Your task to perform on an android device: visit the assistant section in the google photos Image 0: 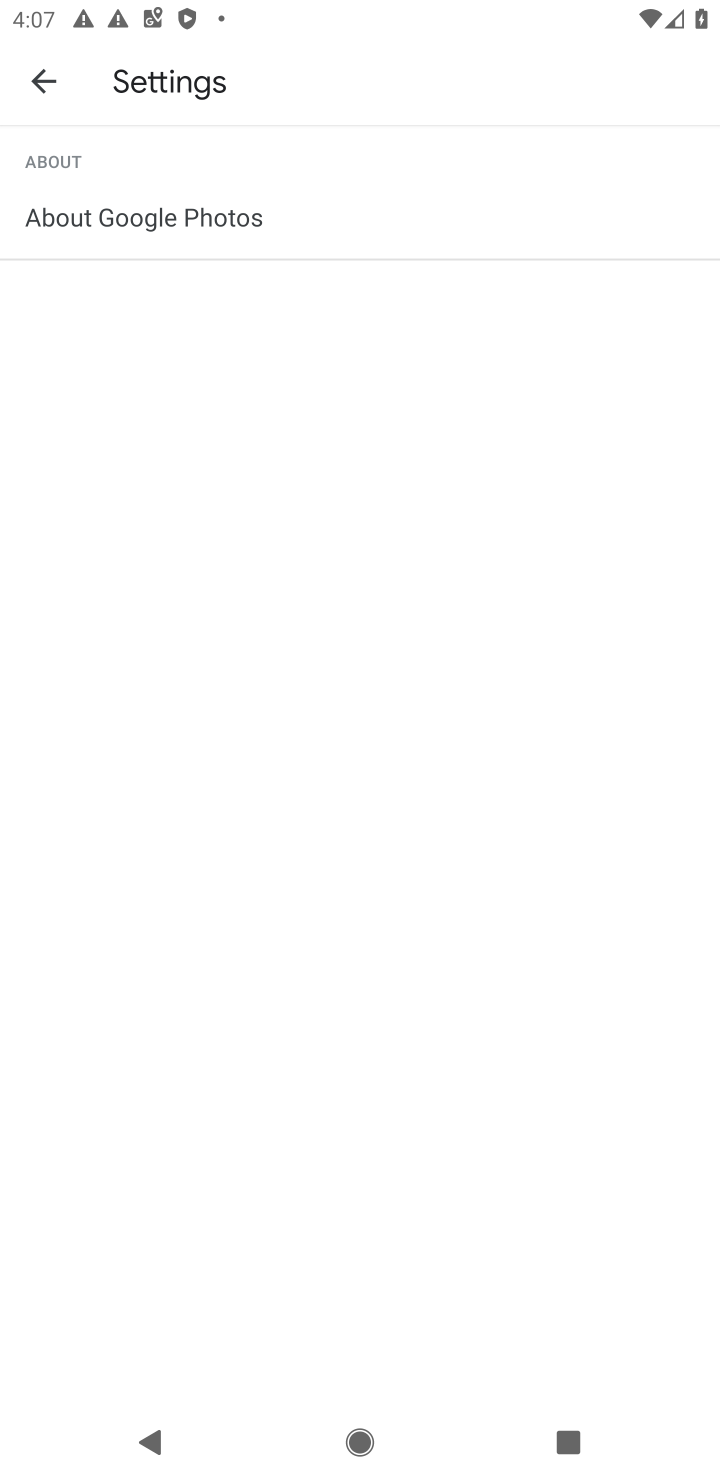
Step 0: press home button
Your task to perform on an android device: visit the assistant section in the google photos Image 1: 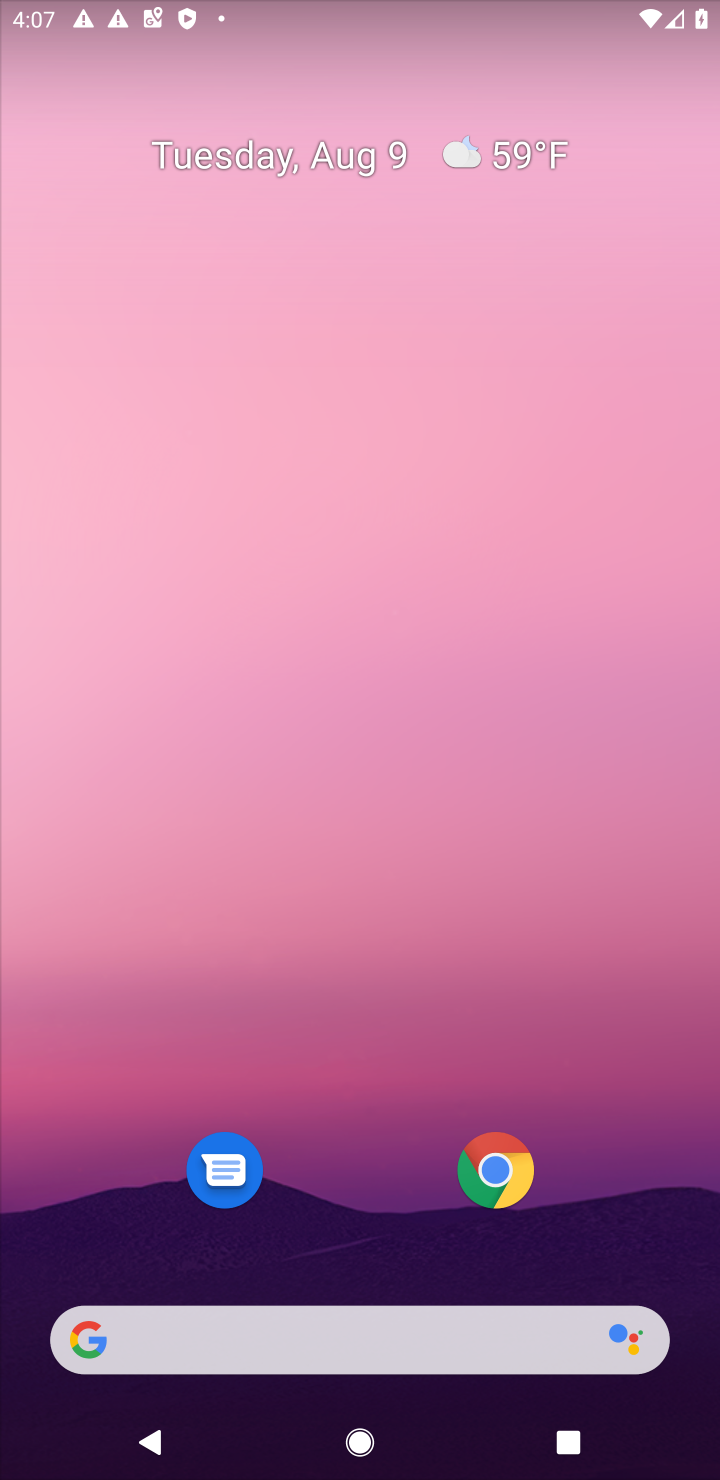
Step 1: drag from (356, 1231) to (341, 369)
Your task to perform on an android device: visit the assistant section in the google photos Image 2: 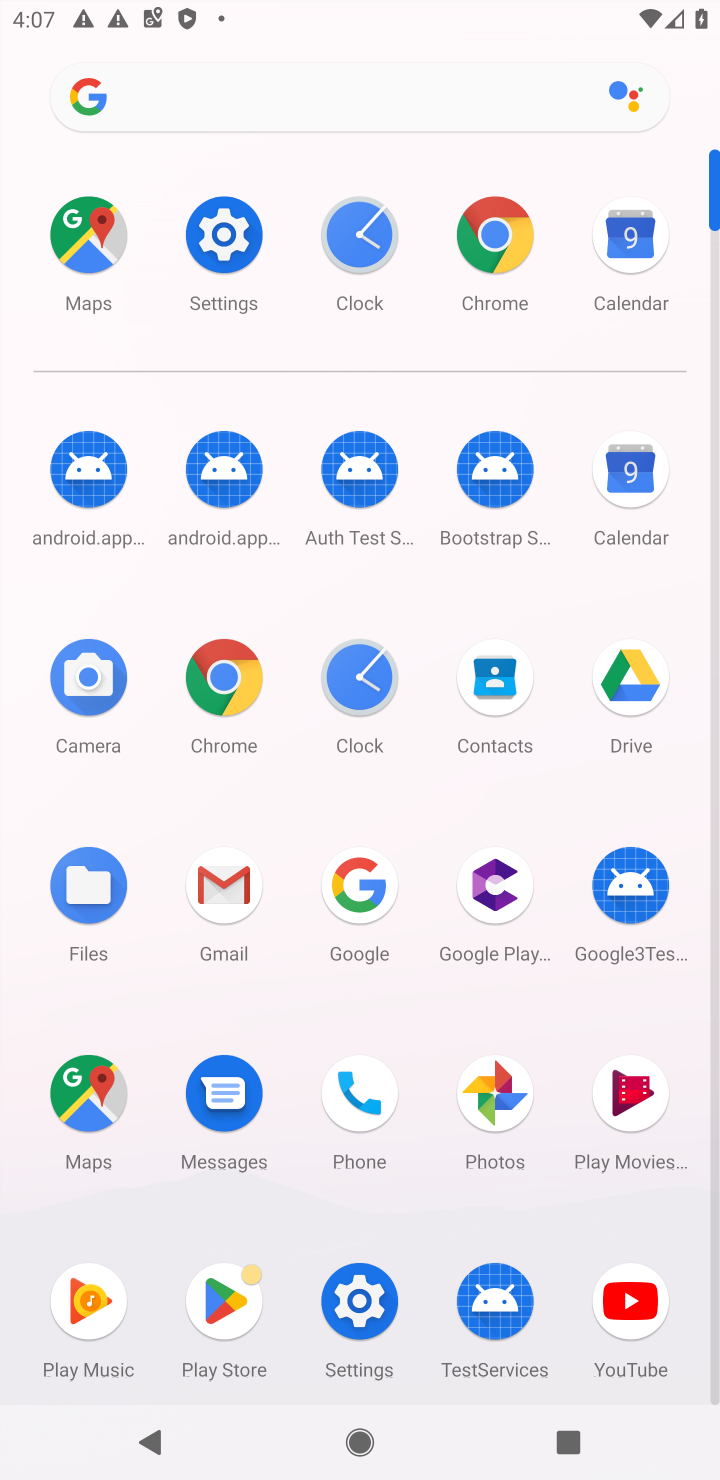
Step 2: click (485, 1095)
Your task to perform on an android device: visit the assistant section in the google photos Image 3: 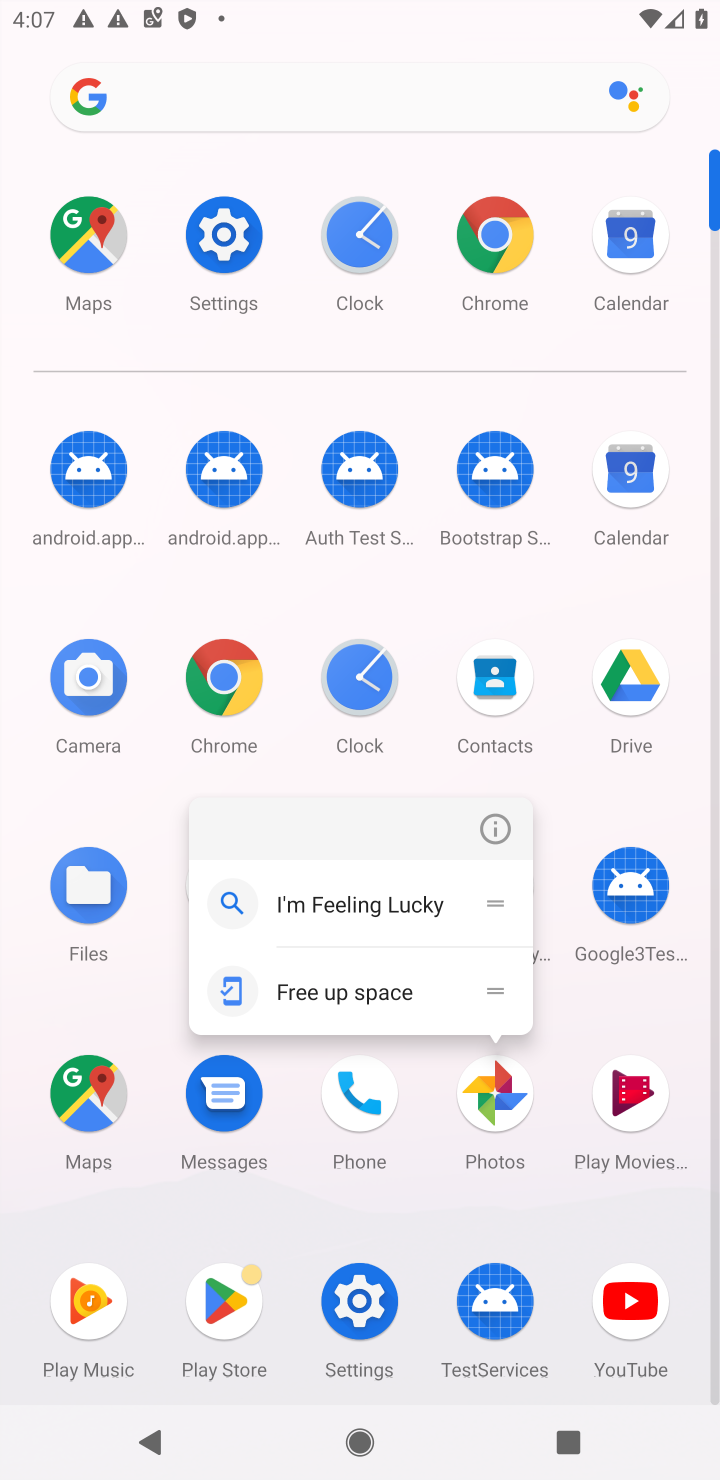
Step 3: click (473, 1121)
Your task to perform on an android device: visit the assistant section in the google photos Image 4: 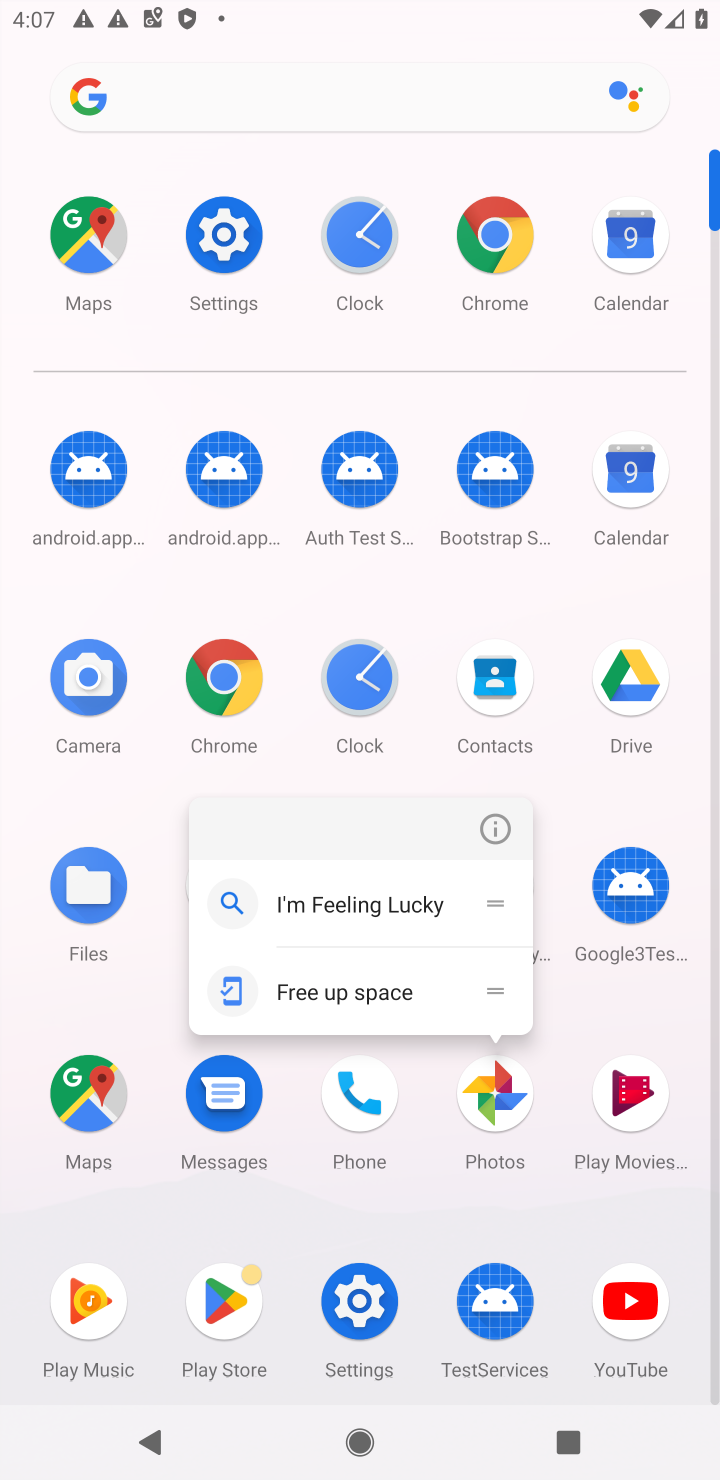
Step 4: click (481, 1108)
Your task to perform on an android device: visit the assistant section in the google photos Image 5: 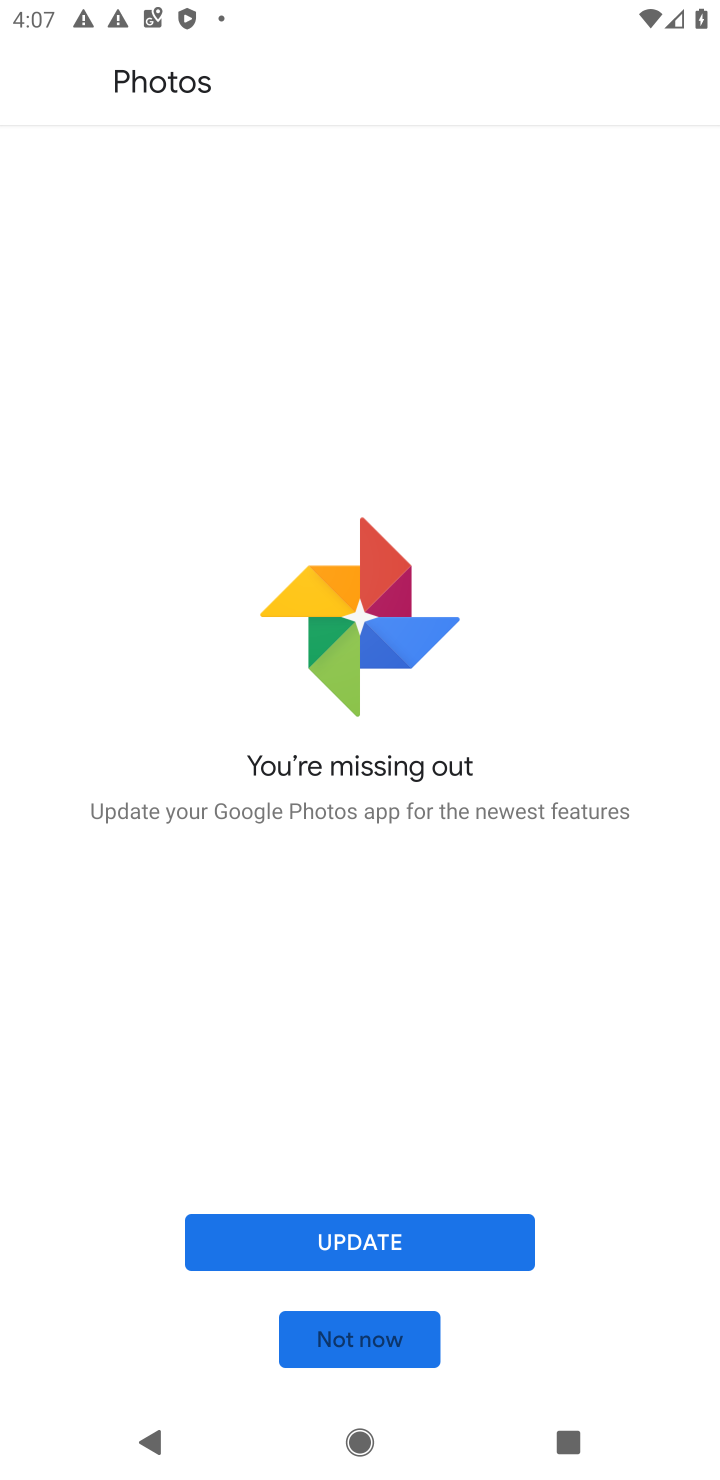
Step 5: click (405, 1237)
Your task to perform on an android device: visit the assistant section in the google photos Image 6: 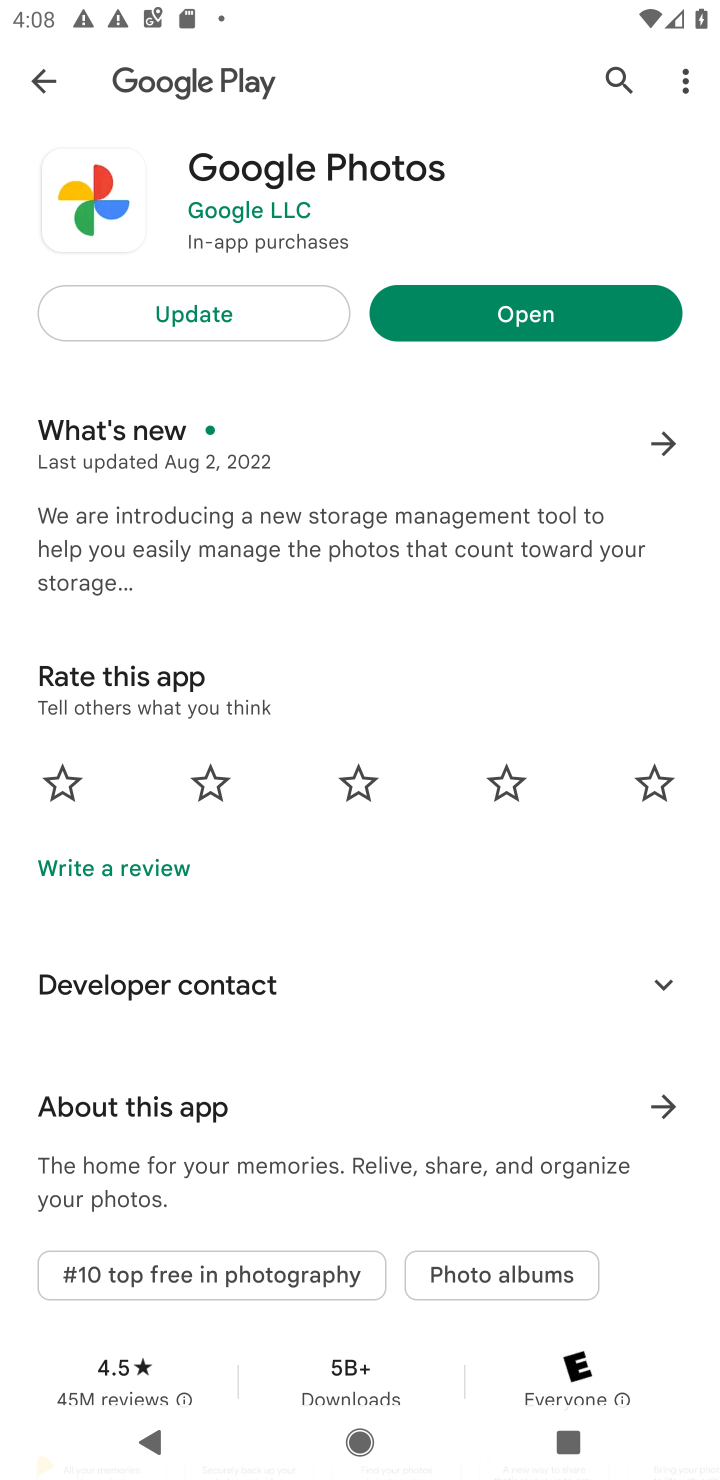
Step 6: click (238, 310)
Your task to perform on an android device: visit the assistant section in the google photos Image 7: 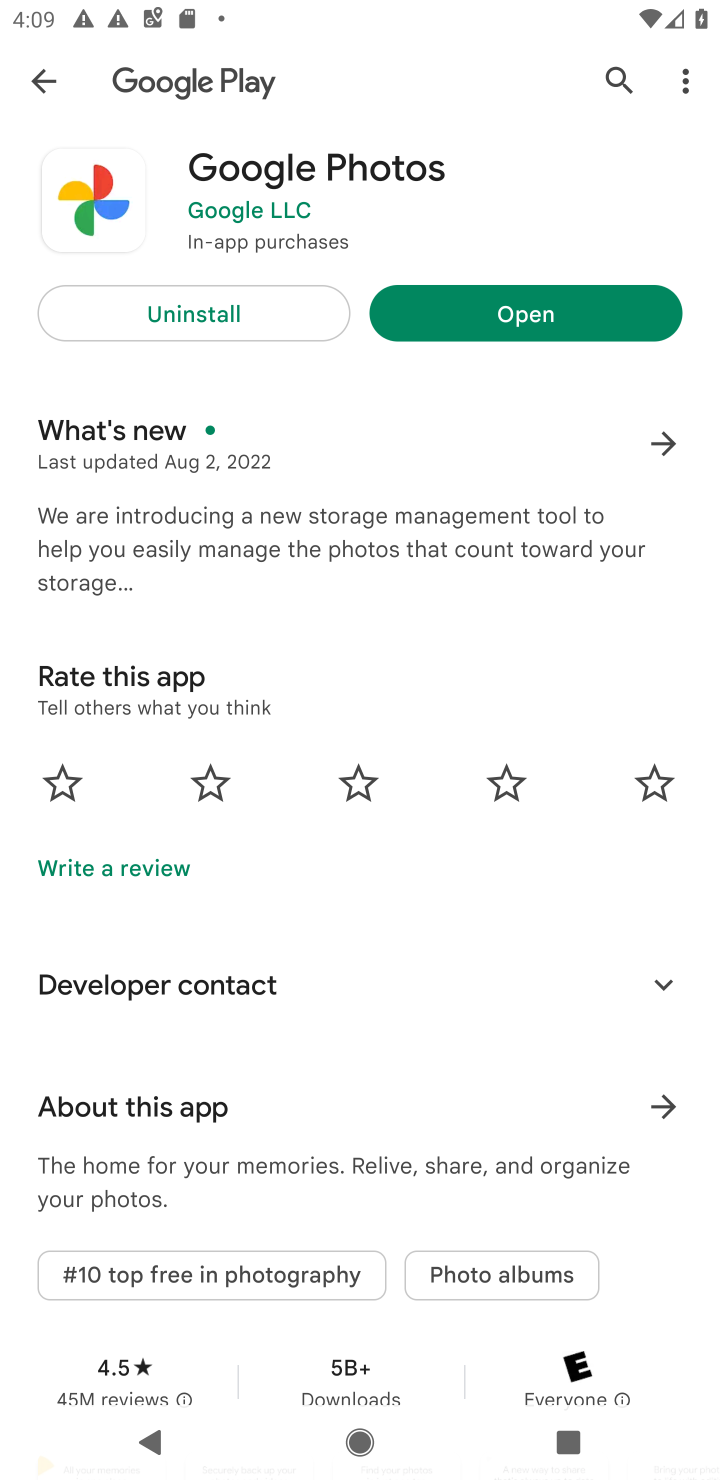
Step 7: click (584, 322)
Your task to perform on an android device: visit the assistant section in the google photos Image 8: 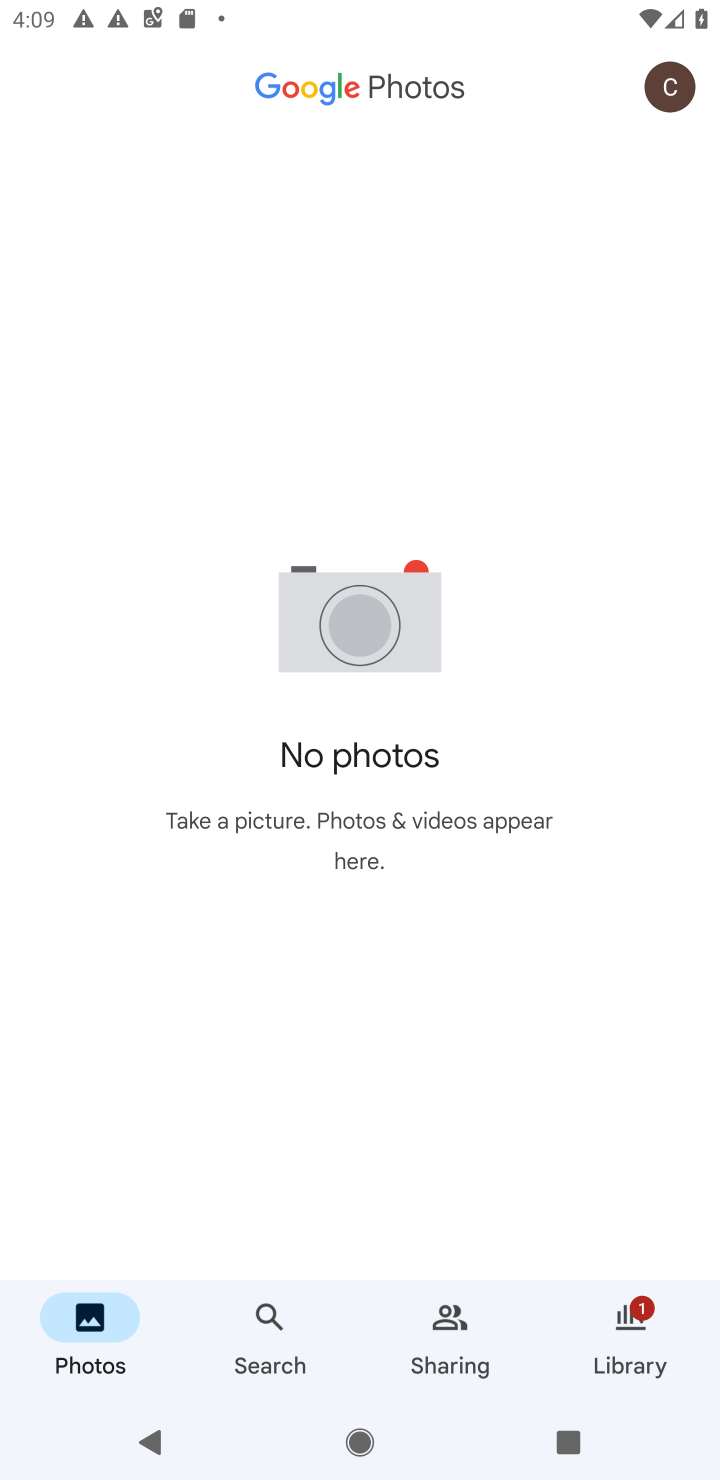
Step 8: task complete